Your task to perform on an android device: turn on translation in the chrome app Image 0: 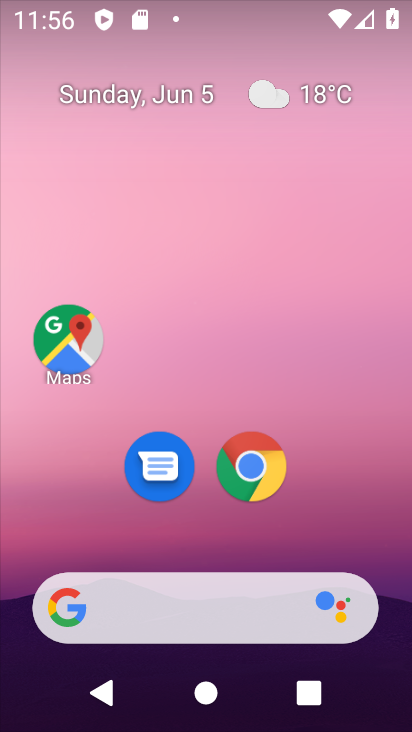
Step 0: drag from (383, 487) to (208, 34)
Your task to perform on an android device: turn on translation in the chrome app Image 1: 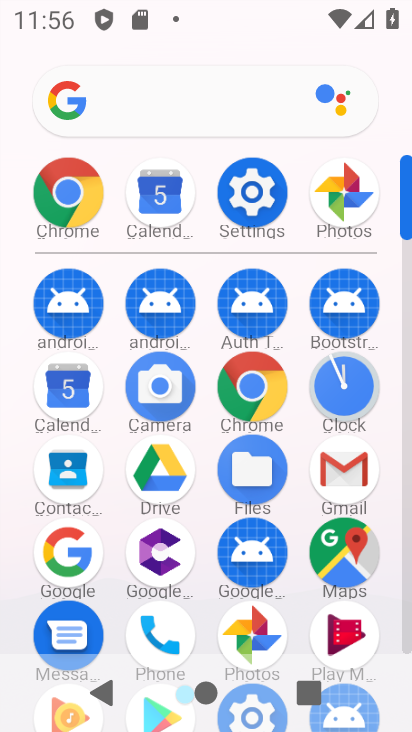
Step 1: click (253, 379)
Your task to perform on an android device: turn on translation in the chrome app Image 2: 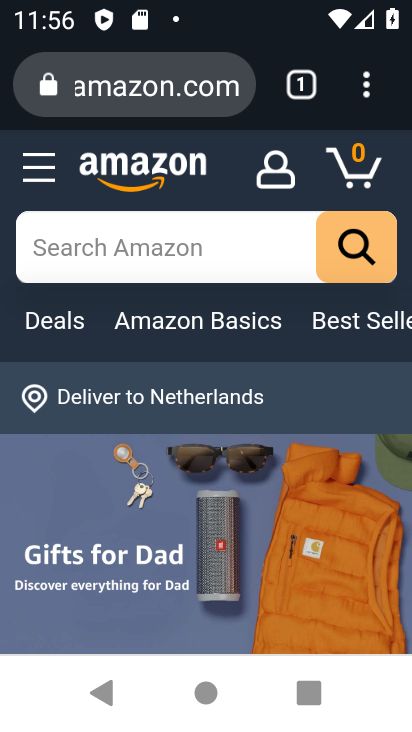
Step 2: drag from (368, 81) to (142, 501)
Your task to perform on an android device: turn on translation in the chrome app Image 3: 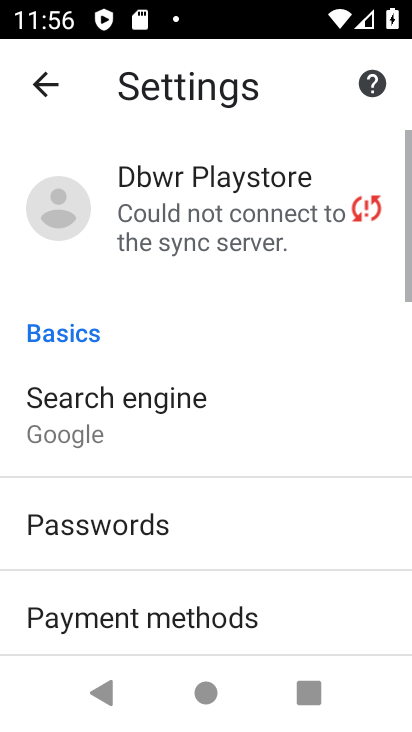
Step 3: drag from (199, 488) to (196, 182)
Your task to perform on an android device: turn on translation in the chrome app Image 4: 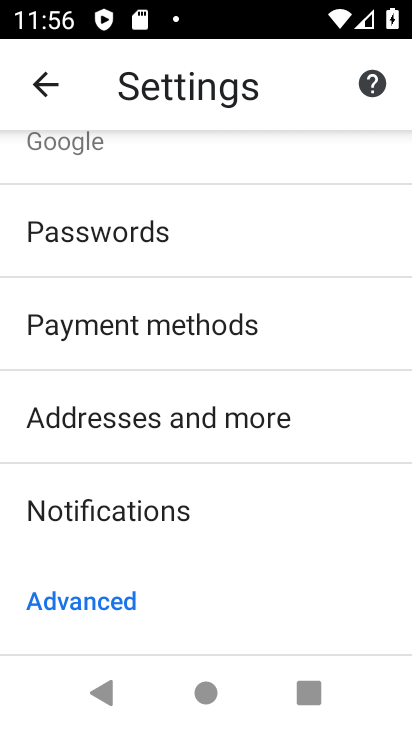
Step 4: drag from (232, 544) to (237, 231)
Your task to perform on an android device: turn on translation in the chrome app Image 5: 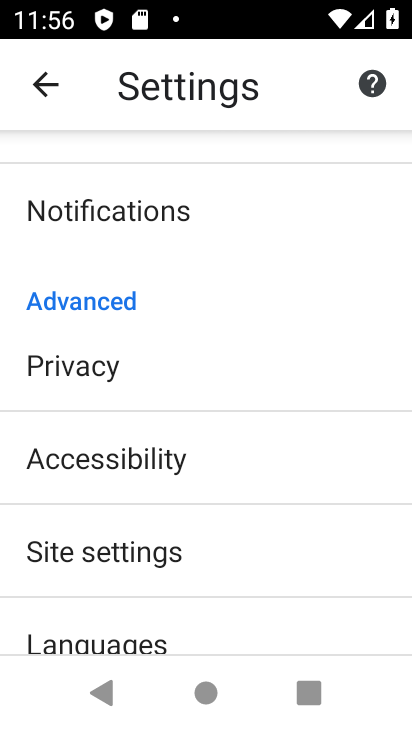
Step 5: click (167, 630)
Your task to perform on an android device: turn on translation in the chrome app Image 6: 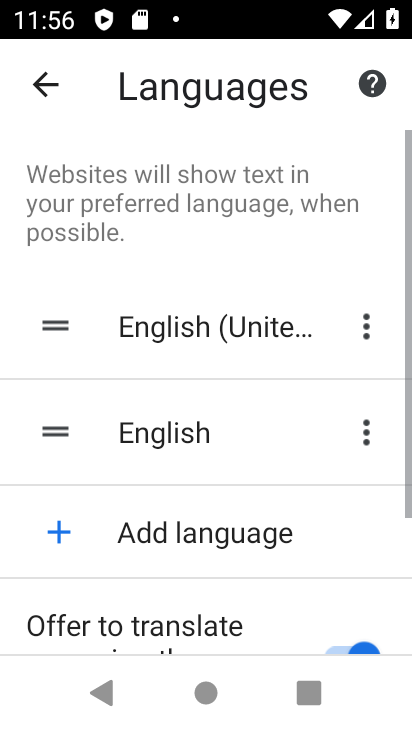
Step 6: task complete